Your task to perform on an android device: toggle priority inbox in the gmail app Image 0: 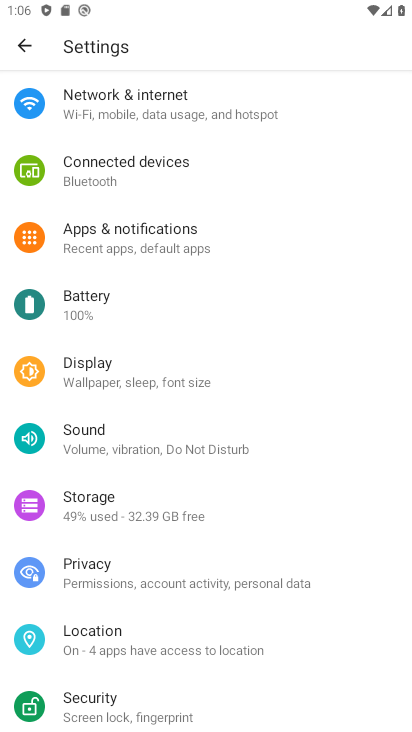
Step 0: press home button
Your task to perform on an android device: toggle priority inbox in the gmail app Image 1: 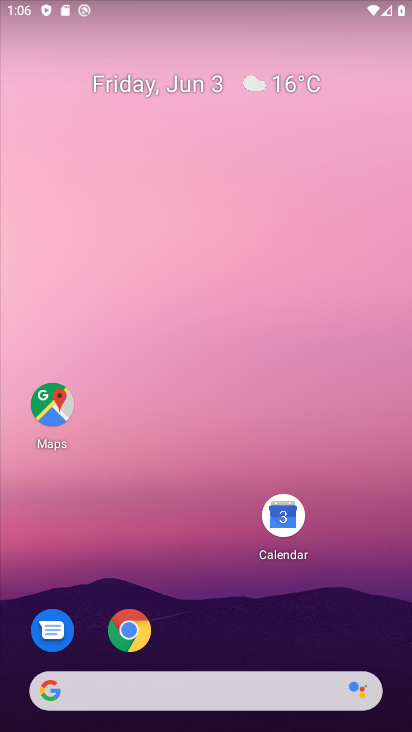
Step 1: drag from (239, 701) to (130, 193)
Your task to perform on an android device: toggle priority inbox in the gmail app Image 2: 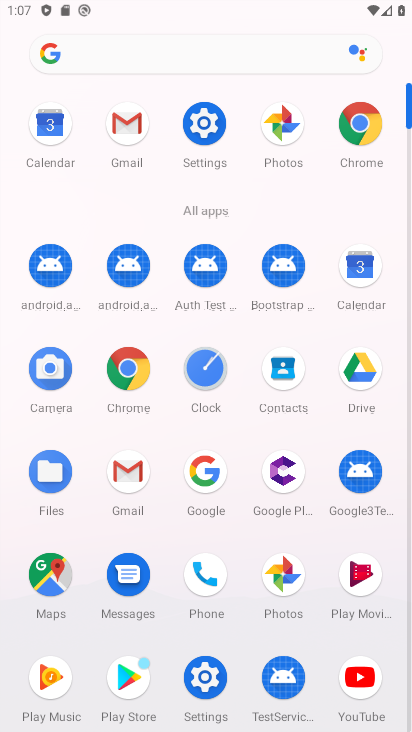
Step 2: click (141, 466)
Your task to perform on an android device: toggle priority inbox in the gmail app Image 3: 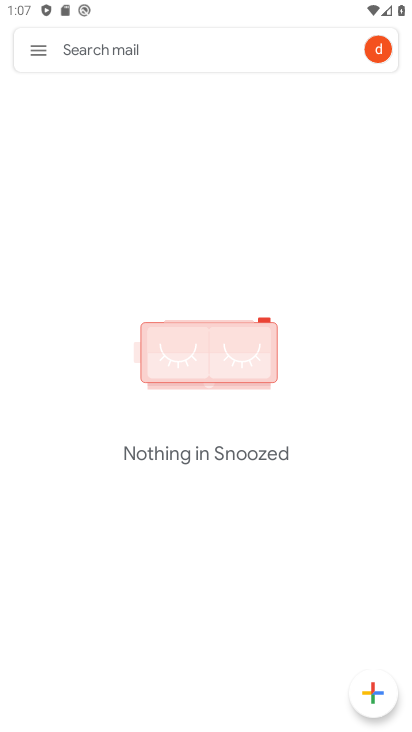
Step 3: click (30, 52)
Your task to perform on an android device: toggle priority inbox in the gmail app Image 4: 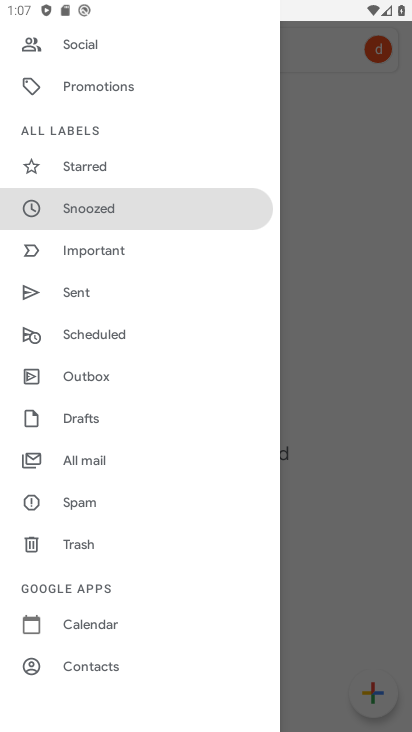
Step 4: drag from (106, 613) to (112, 533)
Your task to perform on an android device: toggle priority inbox in the gmail app Image 5: 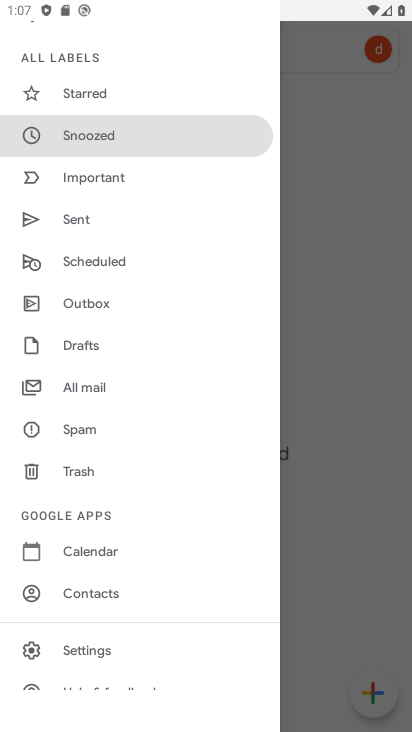
Step 5: click (93, 650)
Your task to perform on an android device: toggle priority inbox in the gmail app Image 6: 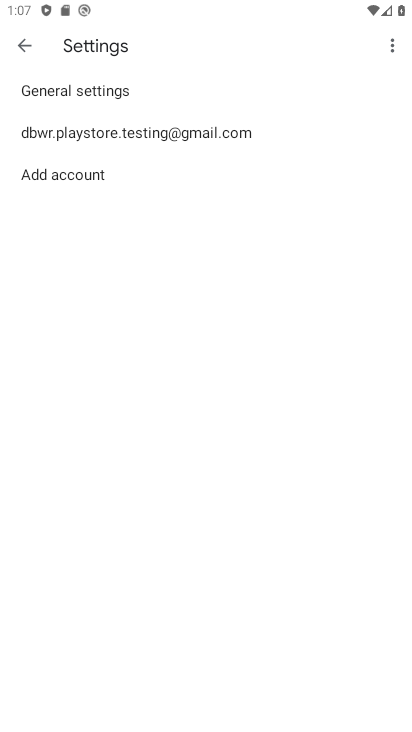
Step 6: click (162, 122)
Your task to perform on an android device: toggle priority inbox in the gmail app Image 7: 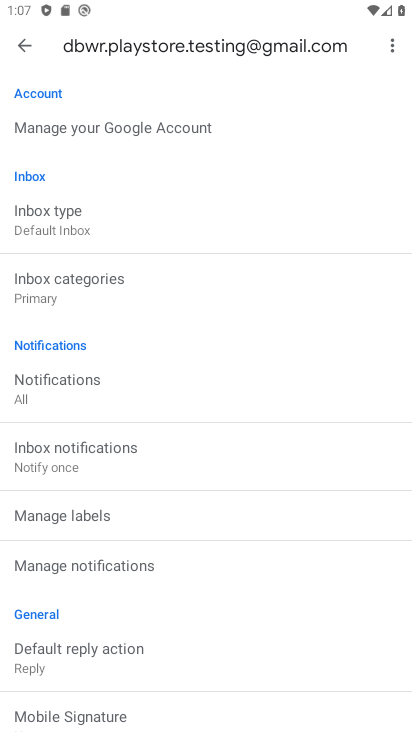
Step 7: click (114, 227)
Your task to perform on an android device: toggle priority inbox in the gmail app Image 8: 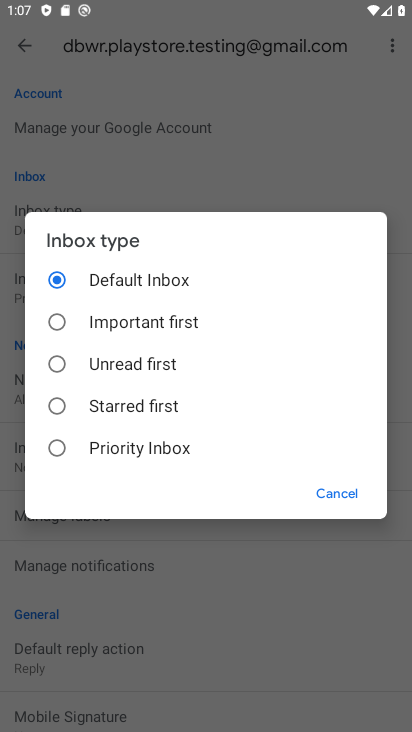
Step 8: task complete